Your task to perform on an android device: Open my contact list Image 0: 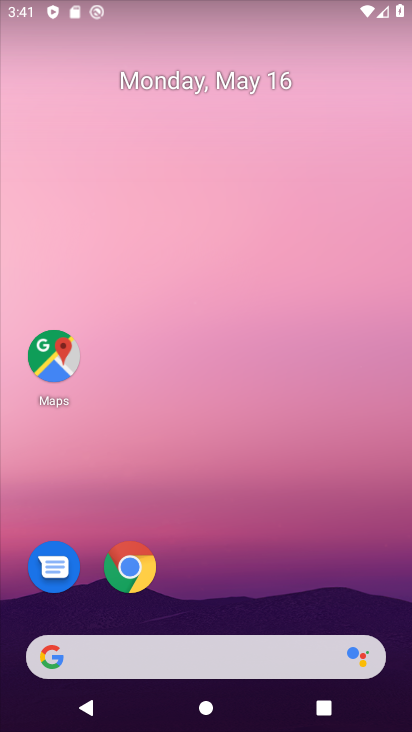
Step 0: drag from (269, 573) to (310, 1)
Your task to perform on an android device: Open my contact list Image 1: 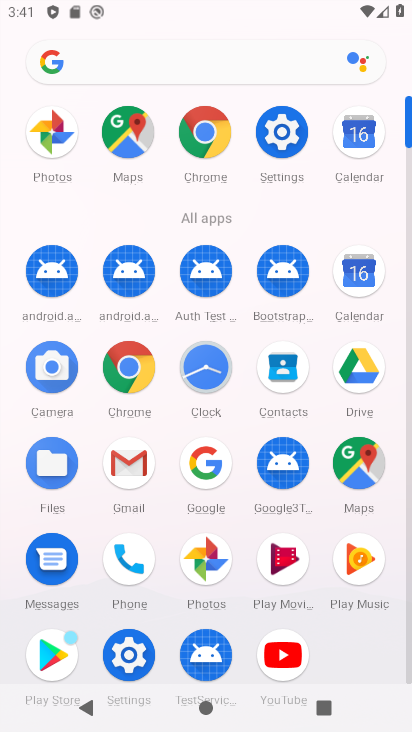
Step 1: click (274, 379)
Your task to perform on an android device: Open my contact list Image 2: 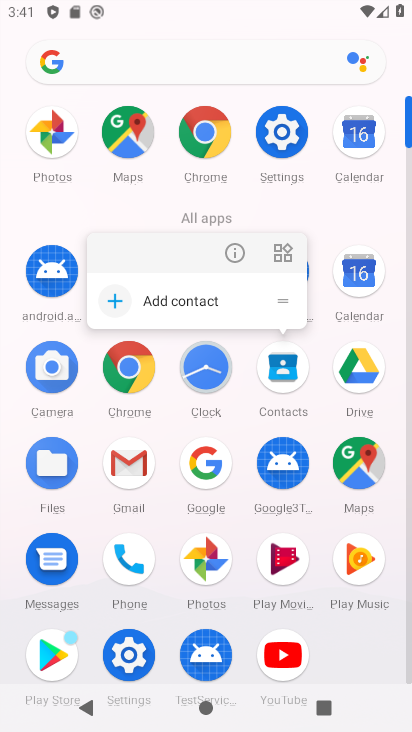
Step 2: click (357, 198)
Your task to perform on an android device: Open my contact list Image 3: 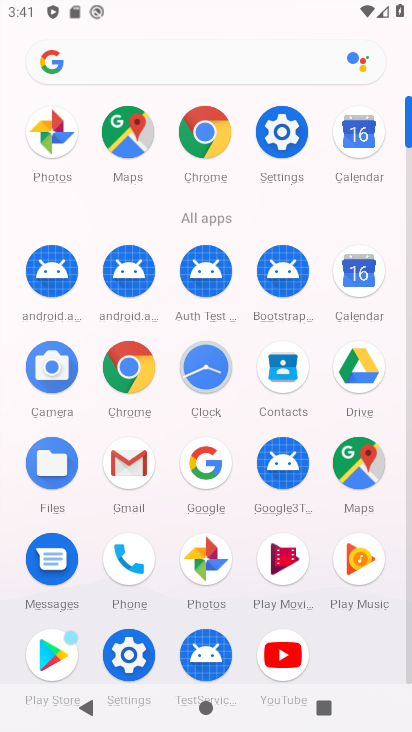
Step 3: click (285, 370)
Your task to perform on an android device: Open my contact list Image 4: 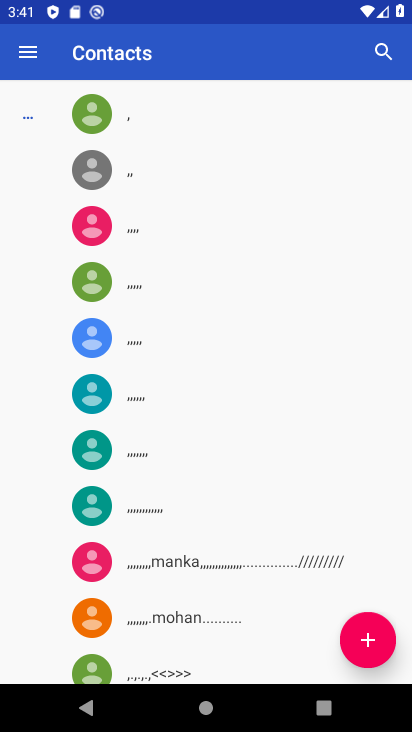
Step 4: task complete